Your task to perform on an android device: Open Google Maps Image 0: 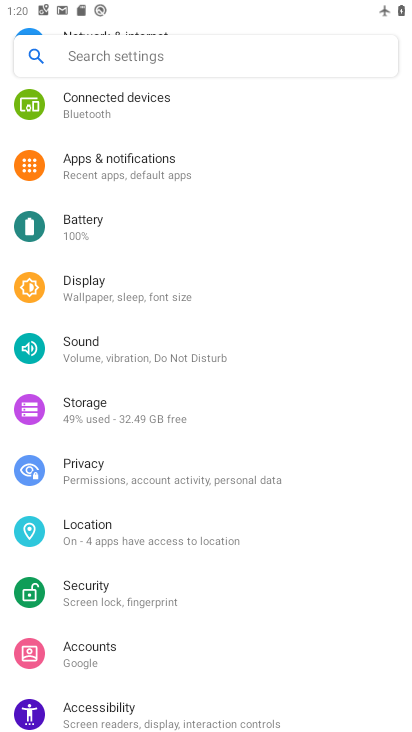
Step 0: press home button
Your task to perform on an android device: Open Google Maps Image 1: 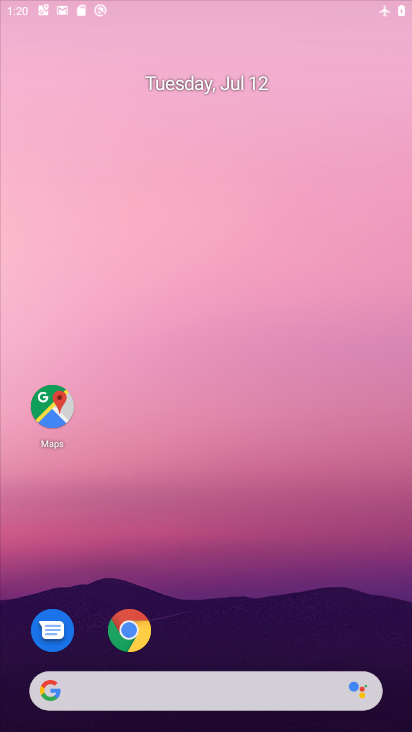
Step 1: drag from (229, 605) to (362, 135)
Your task to perform on an android device: Open Google Maps Image 2: 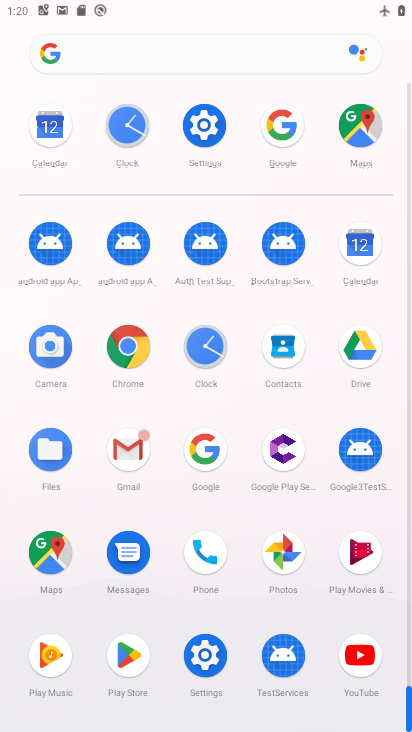
Step 2: click (60, 558)
Your task to perform on an android device: Open Google Maps Image 3: 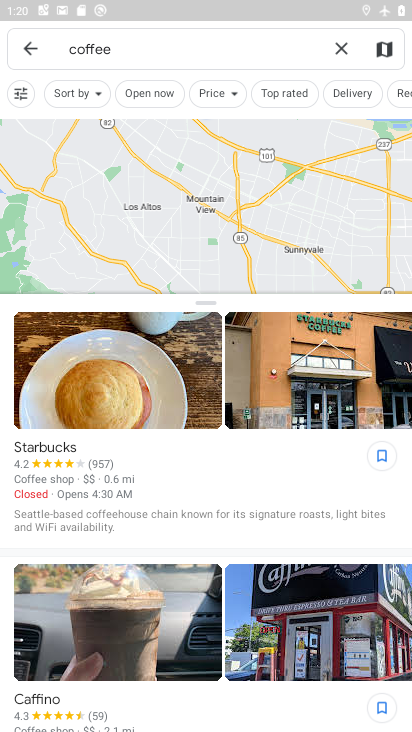
Step 3: task complete